Your task to perform on an android device: Show me popular videos on Youtube Image 0: 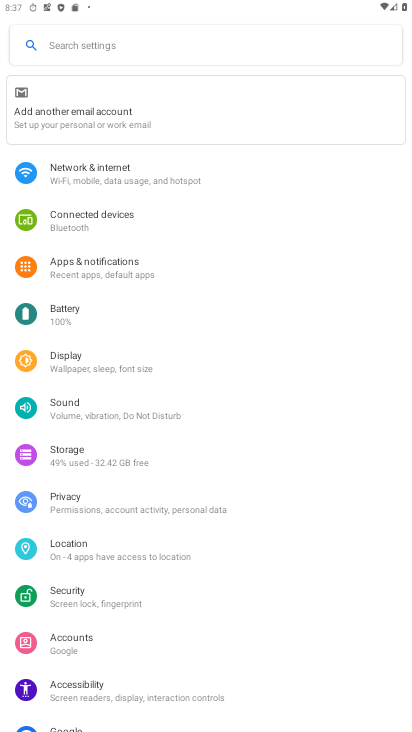
Step 0: press home button
Your task to perform on an android device: Show me popular videos on Youtube Image 1: 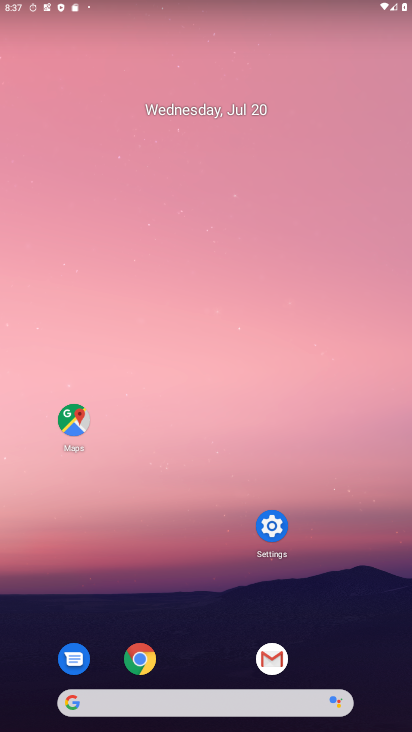
Step 1: drag from (253, 705) to (313, 131)
Your task to perform on an android device: Show me popular videos on Youtube Image 2: 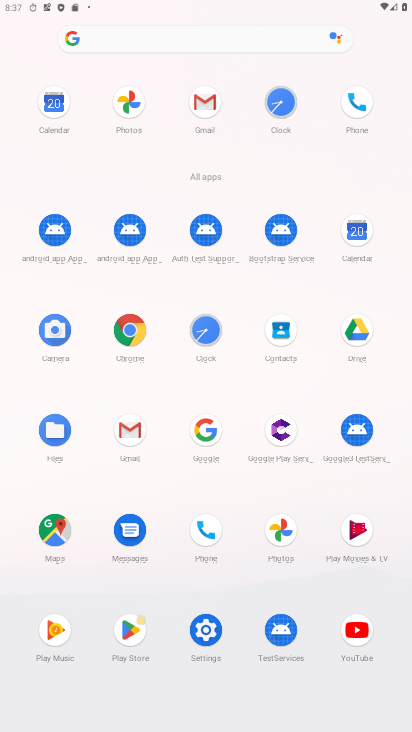
Step 2: click (353, 619)
Your task to perform on an android device: Show me popular videos on Youtube Image 3: 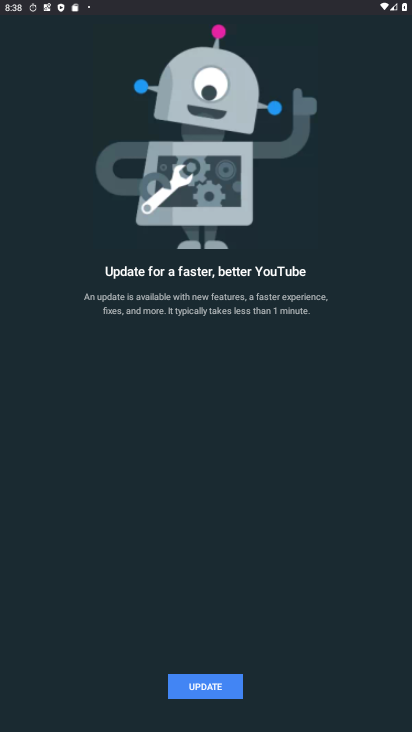
Step 3: click (228, 691)
Your task to perform on an android device: Show me popular videos on Youtube Image 4: 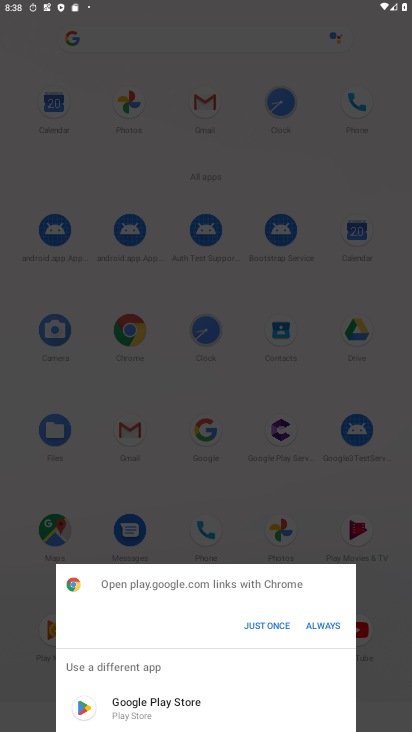
Step 4: click (173, 709)
Your task to perform on an android device: Show me popular videos on Youtube Image 5: 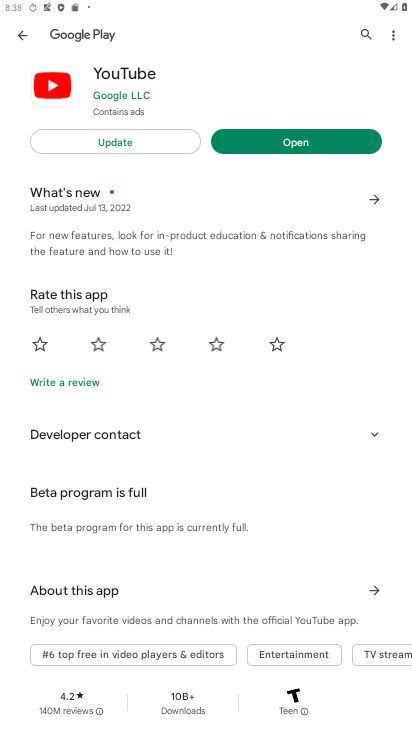
Step 5: click (122, 137)
Your task to perform on an android device: Show me popular videos on Youtube Image 6: 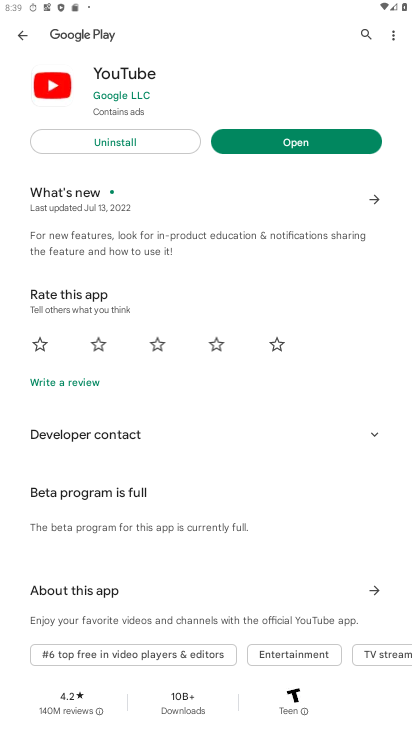
Step 6: click (349, 134)
Your task to perform on an android device: Show me popular videos on Youtube Image 7: 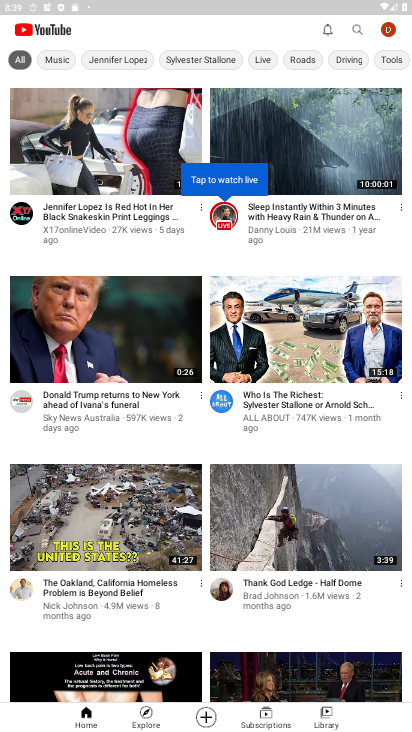
Step 7: click (354, 31)
Your task to perform on an android device: Show me popular videos on Youtube Image 8: 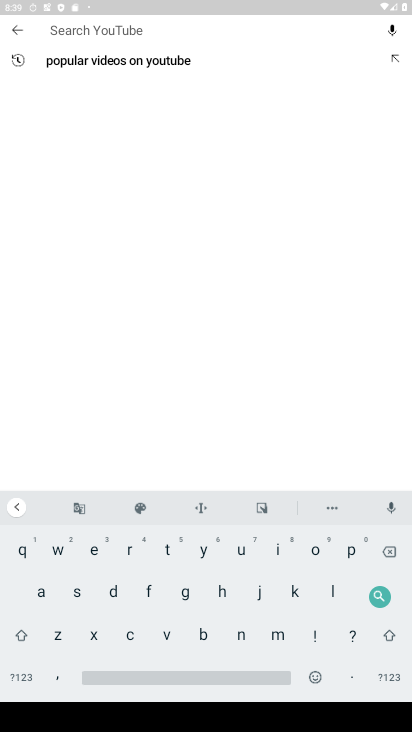
Step 8: click (139, 56)
Your task to perform on an android device: Show me popular videos on Youtube Image 9: 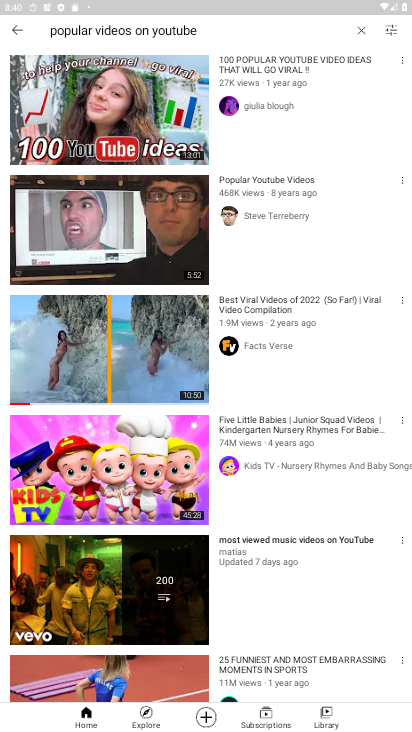
Step 9: task complete